Your task to perform on an android device: Check the news Image 0: 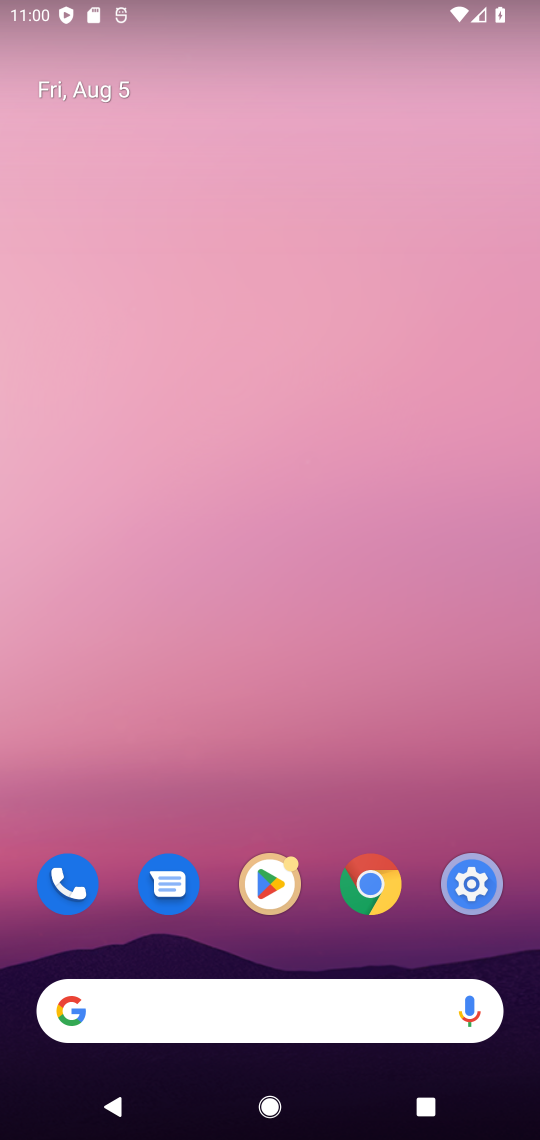
Step 0: click (227, 1029)
Your task to perform on an android device: Check the news Image 1: 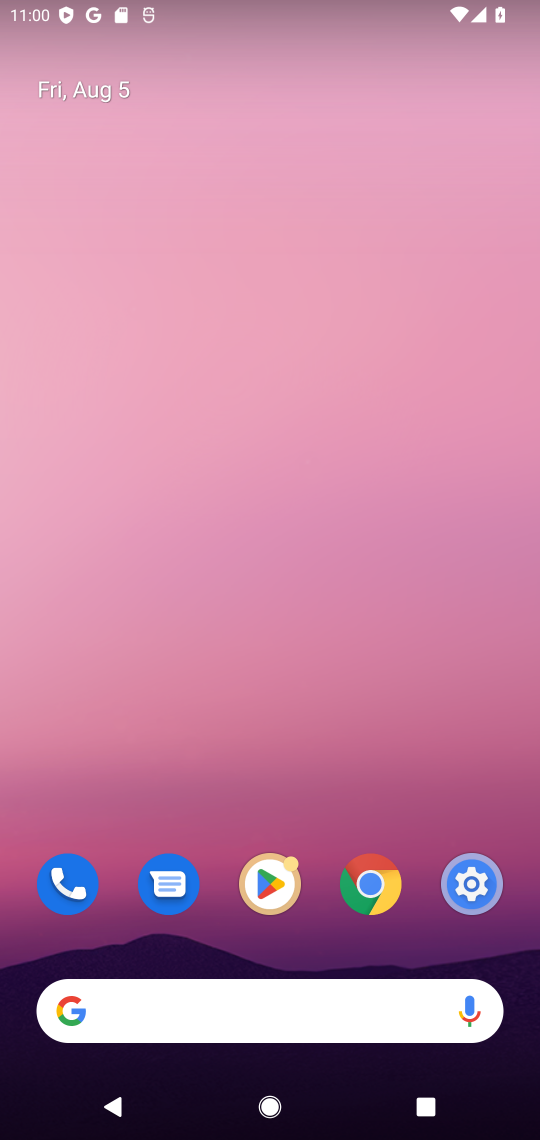
Step 1: click (263, 993)
Your task to perform on an android device: Check the news Image 2: 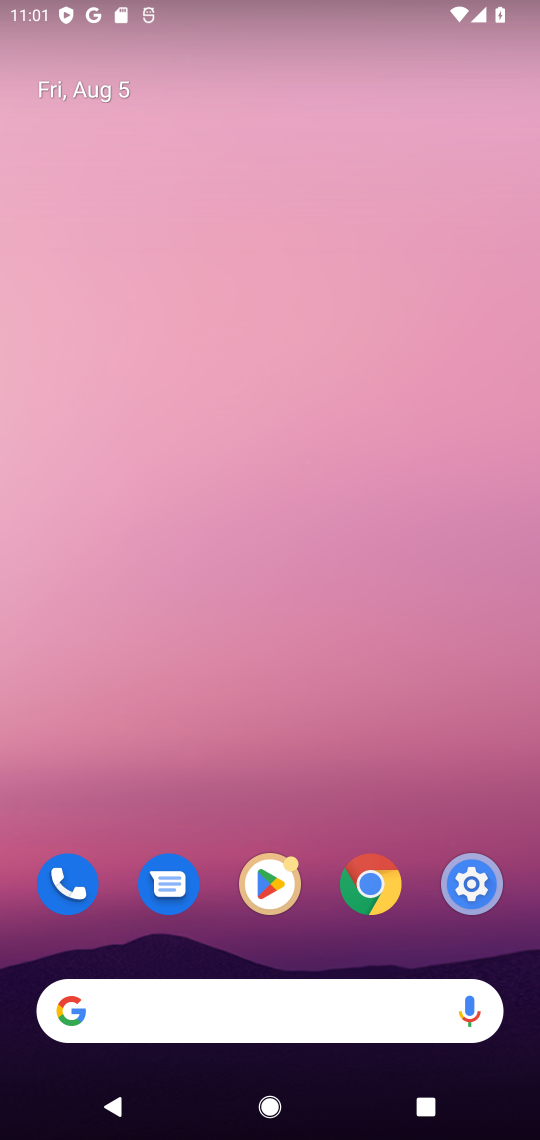
Step 2: click (231, 1012)
Your task to perform on an android device: Check the news Image 3: 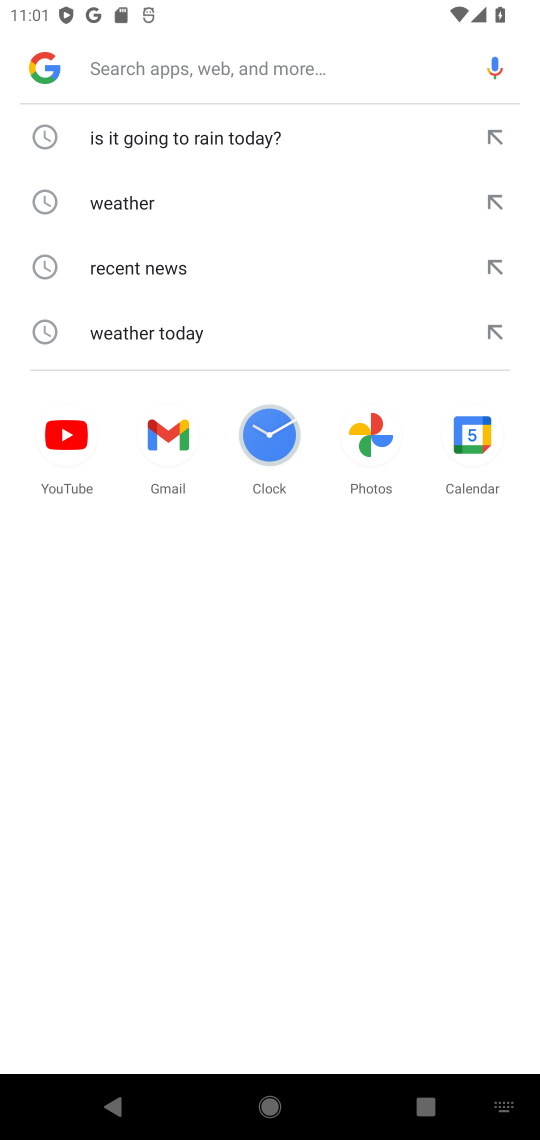
Step 3: type "news"
Your task to perform on an android device: Check the news Image 4: 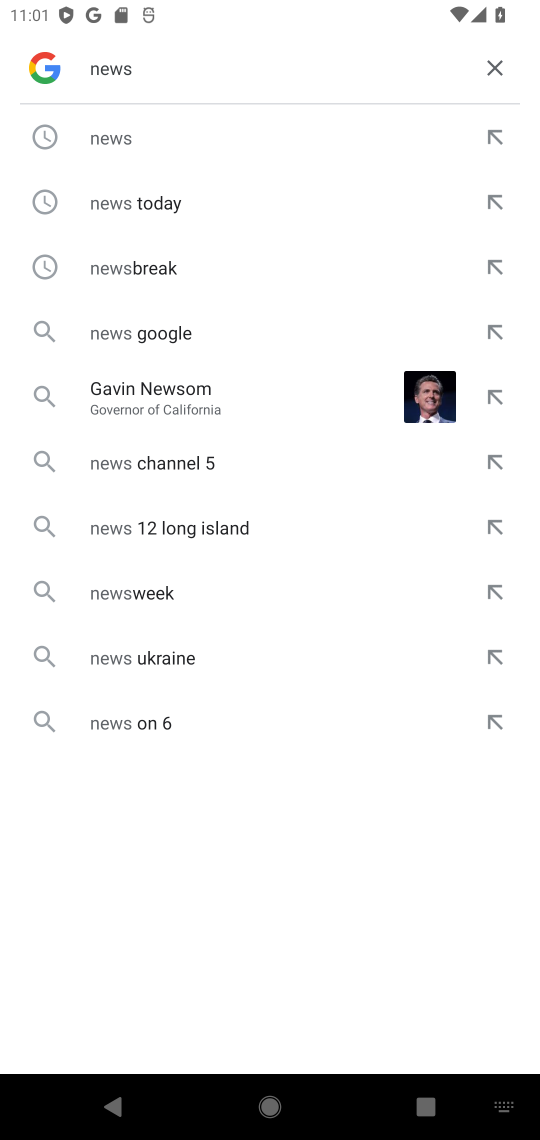
Step 4: click (175, 129)
Your task to perform on an android device: Check the news Image 5: 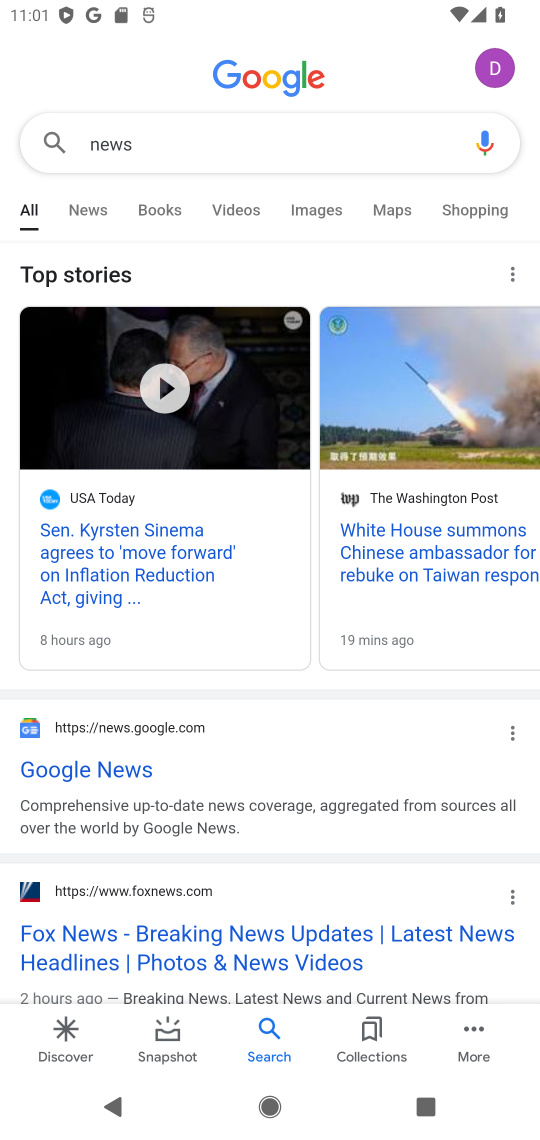
Step 5: click (93, 207)
Your task to perform on an android device: Check the news Image 6: 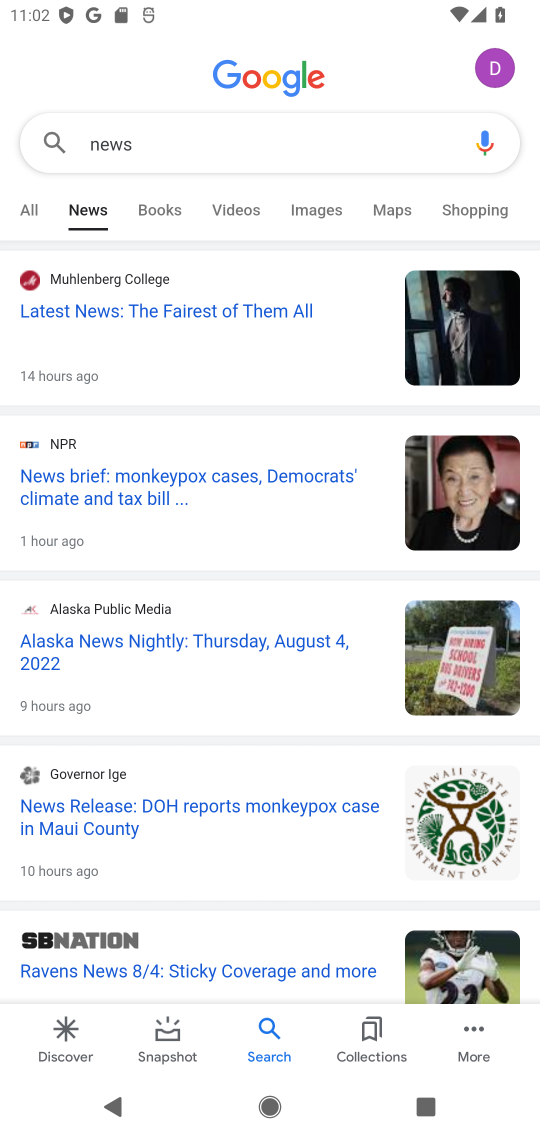
Step 6: task complete